Your task to perform on an android device: Open the map Image 0: 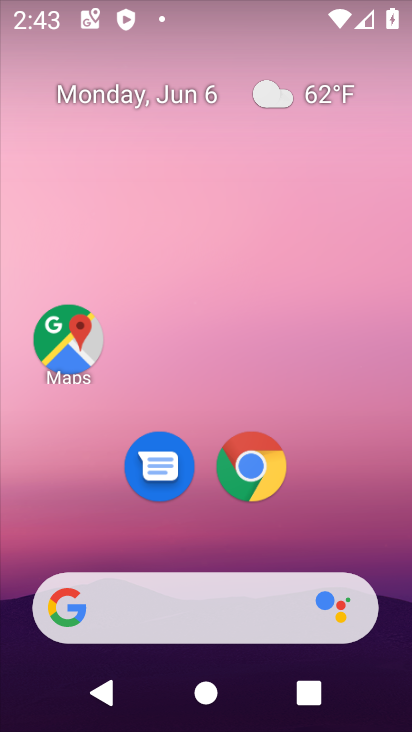
Step 0: drag from (256, 670) to (170, 198)
Your task to perform on an android device: Open the map Image 1: 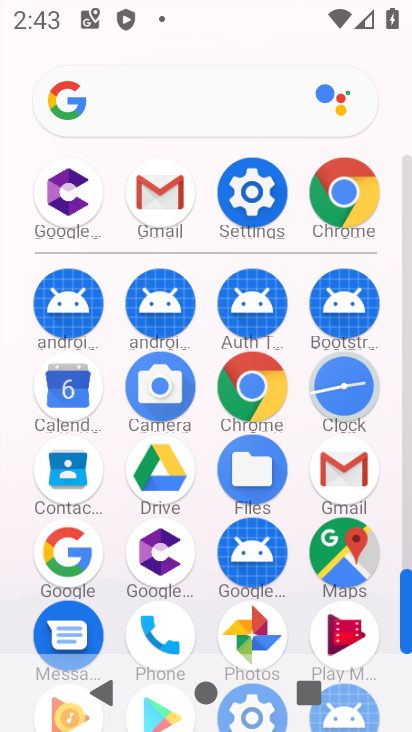
Step 1: click (360, 541)
Your task to perform on an android device: Open the map Image 2: 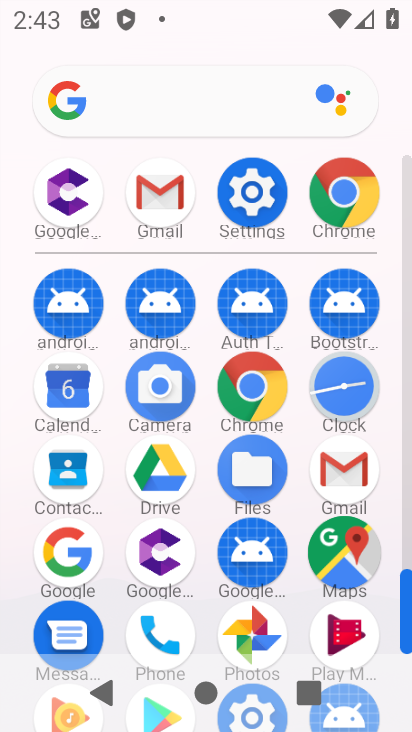
Step 2: click (360, 541)
Your task to perform on an android device: Open the map Image 3: 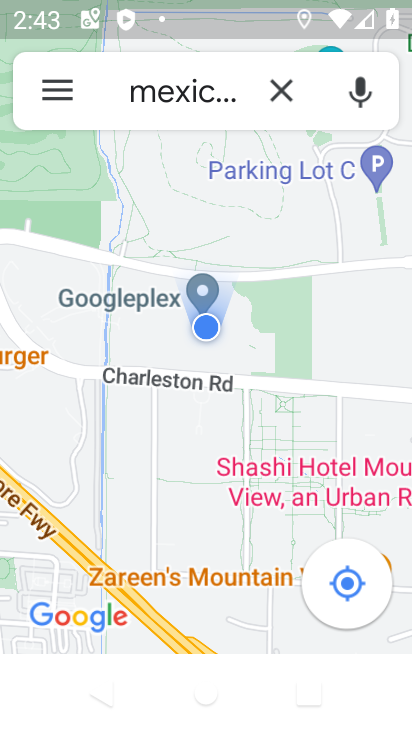
Step 3: task complete